Your task to perform on an android device: Go to wifi settings Image 0: 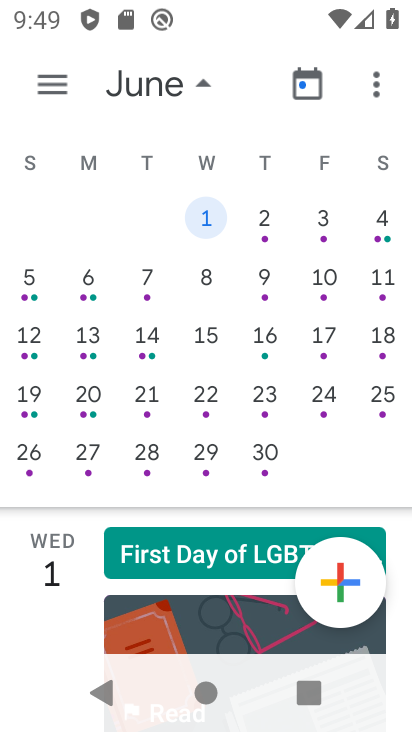
Step 0: press home button
Your task to perform on an android device: Go to wifi settings Image 1: 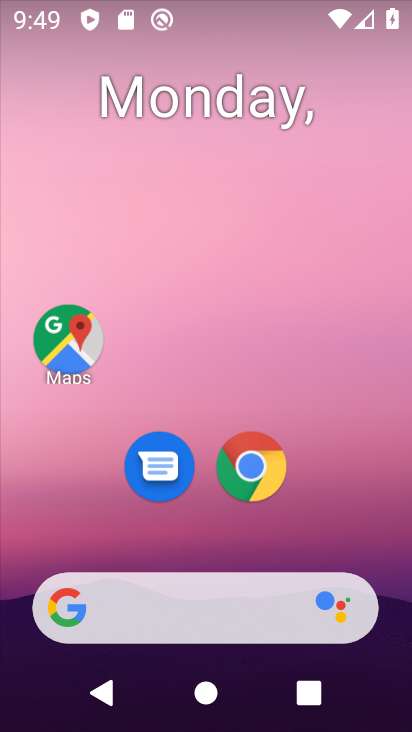
Step 1: drag from (362, 7) to (169, 730)
Your task to perform on an android device: Go to wifi settings Image 2: 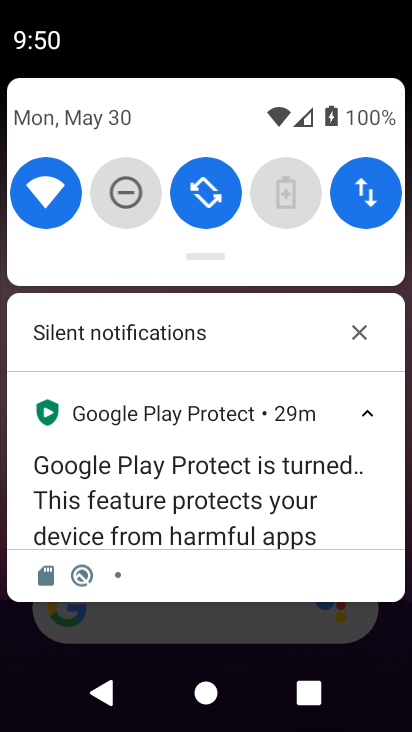
Step 2: drag from (204, 241) to (237, 719)
Your task to perform on an android device: Go to wifi settings Image 3: 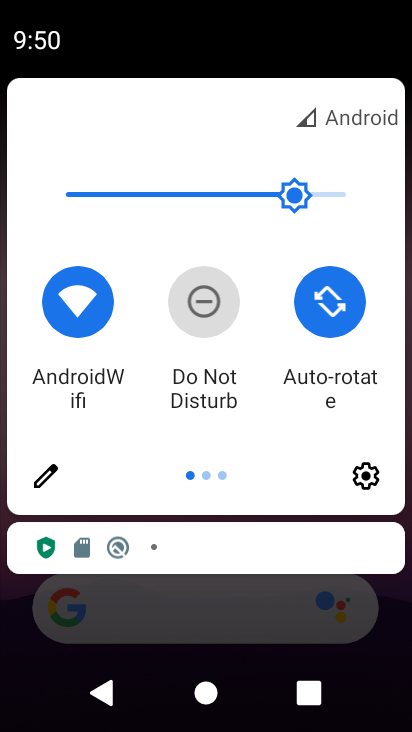
Step 3: drag from (378, 326) to (50, 284)
Your task to perform on an android device: Go to wifi settings Image 4: 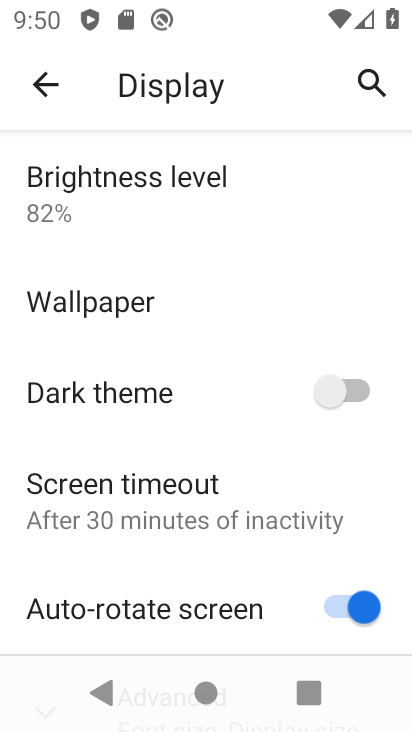
Step 4: press home button
Your task to perform on an android device: Go to wifi settings Image 5: 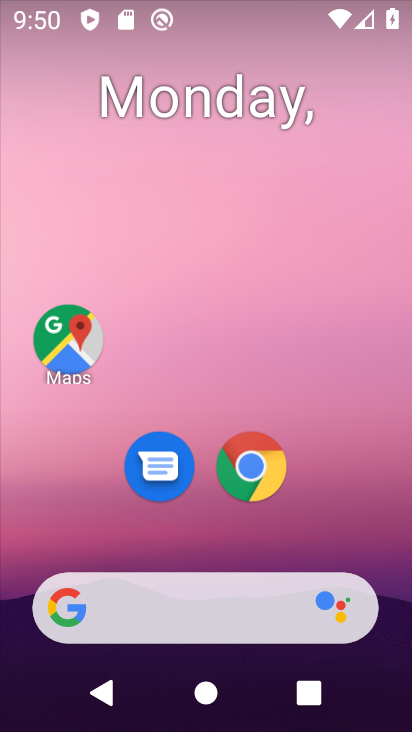
Step 5: drag from (288, 0) to (86, 678)
Your task to perform on an android device: Go to wifi settings Image 6: 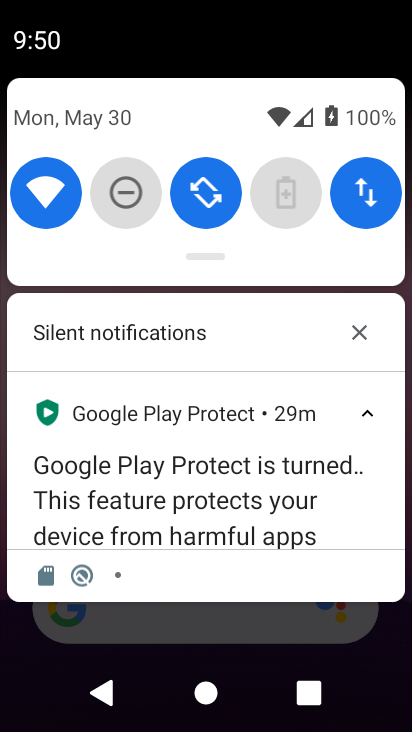
Step 6: drag from (213, 255) to (158, 612)
Your task to perform on an android device: Go to wifi settings Image 7: 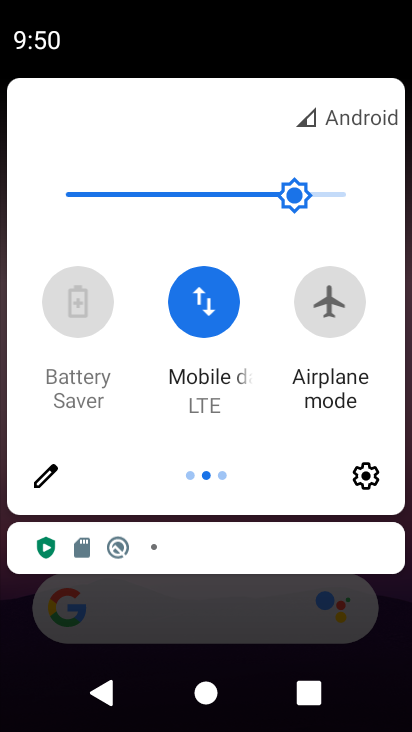
Step 7: drag from (385, 266) to (11, 308)
Your task to perform on an android device: Go to wifi settings Image 8: 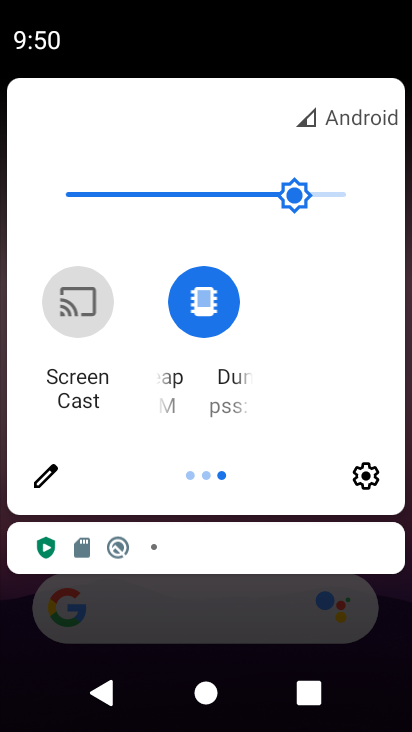
Step 8: drag from (16, 234) to (313, 197)
Your task to perform on an android device: Go to wifi settings Image 9: 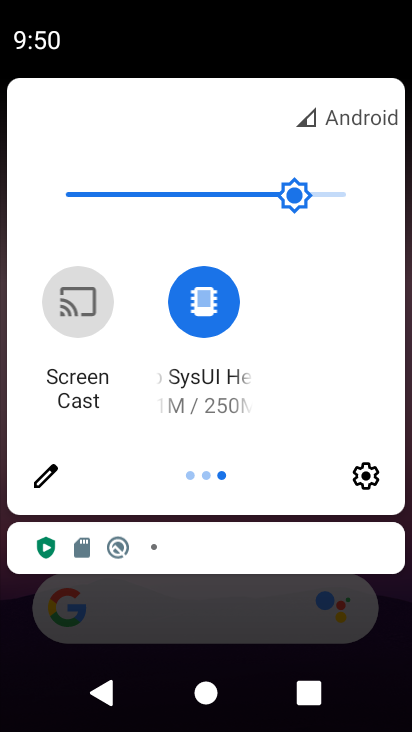
Step 9: drag from (20, 297) to (345, 282)
Your task to perform on an android device: Go to wifi settings Image 10: 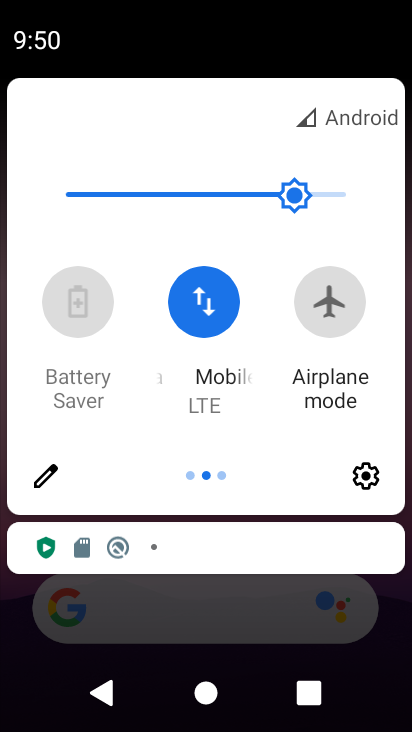
Step 10: drag from (7, 274) to (405, 305)
Your task to perform on an android device: Go to wifi settings Image 11: 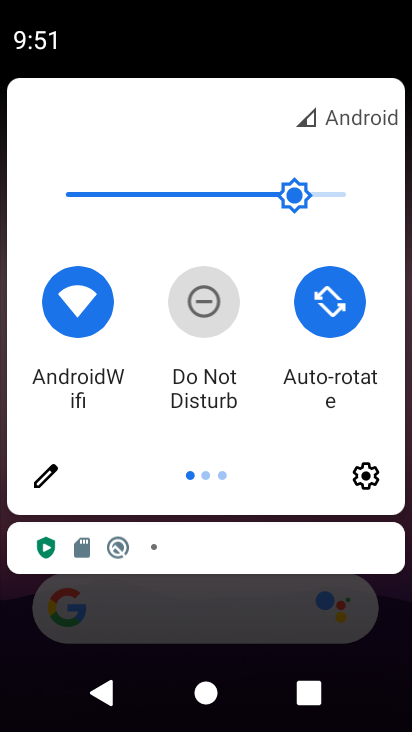
Step 11: click (81, 289)
Your task to perform on an android device: Go to wifi settings Image 12: 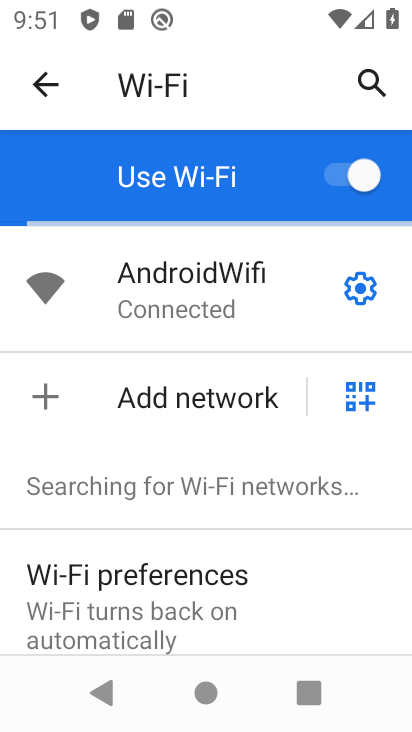
Step 12: task complete